Your task to perform on an android device: Open the map Image 0: 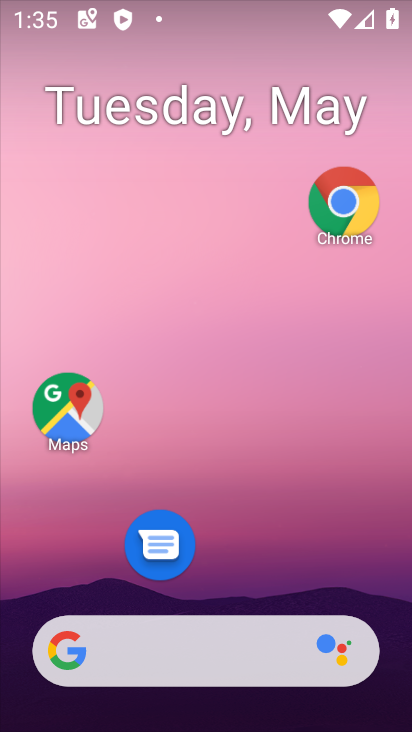
Step 0: click (89, 397)
Your task to perform on an android device: Open the map Image 1: 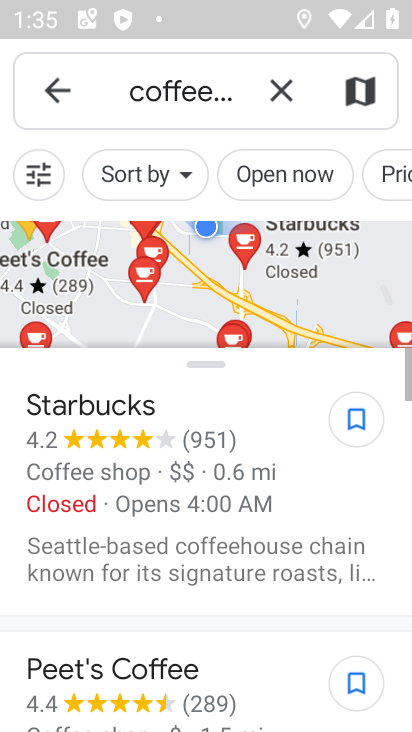
Step 1: task complete